Your task to perform on an android device: open a new tab in the chrome app Image 0: 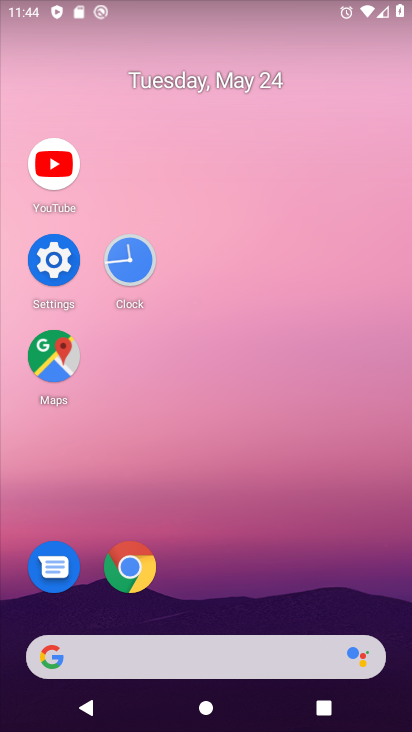
Step 0: click (139, 577)
Your task to perform on an android device: open a new tab in the chrome app Image 1: 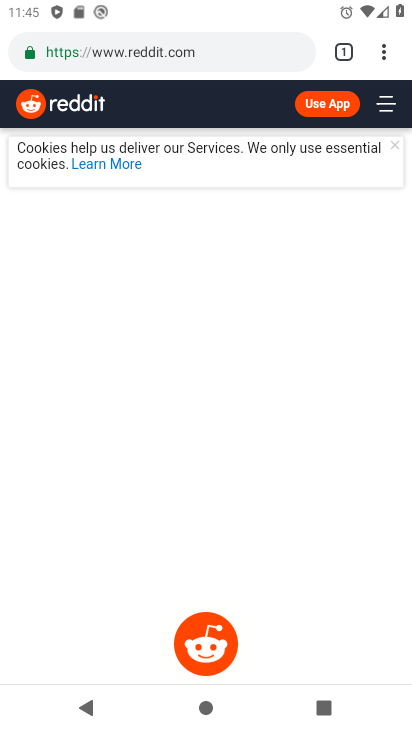
Step 1: click (347, 52)
Your task to perform on an android device: open a new tab in the chrome app Image 2: 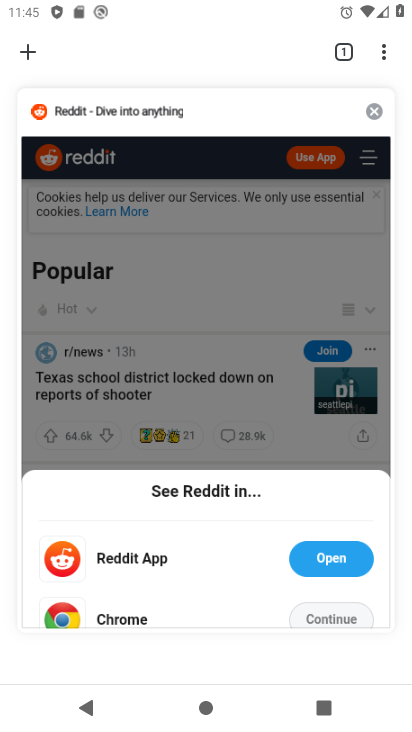
Step 2: click (19, 54)
Your task to perform on an android device: open a new tab in the chrome app Image 3: 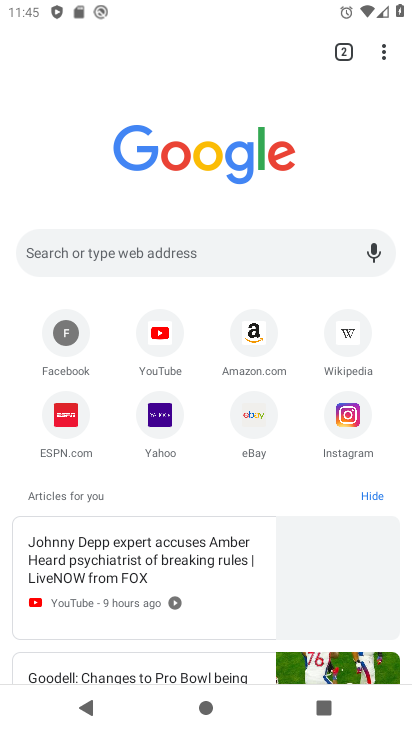
Step 3: task complete